Your task to perform on an android device: Open the map Image 0: 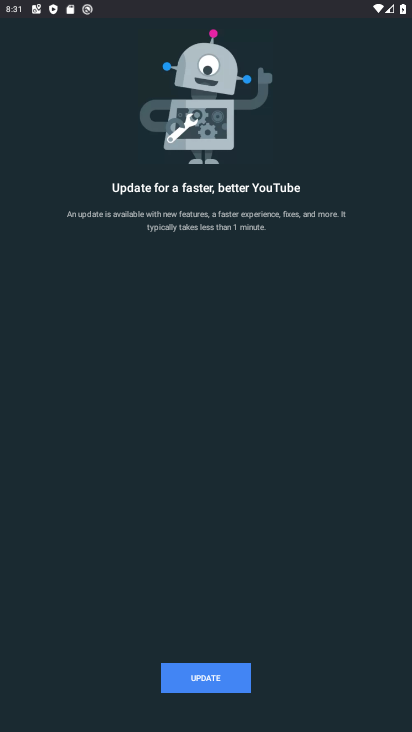
Step 0: press home button
Your task to perform on an android device: Open the map Image 1: 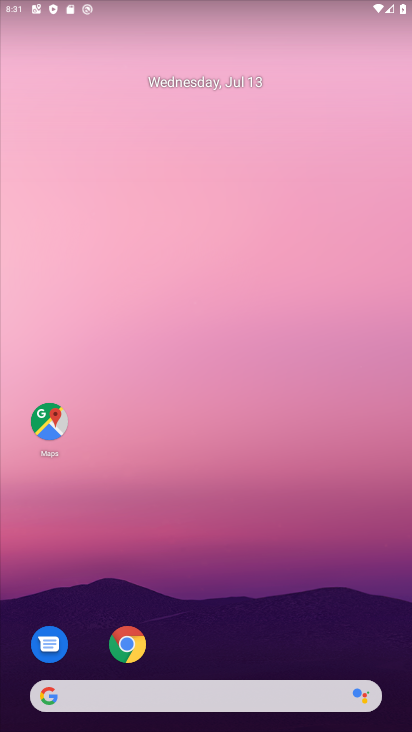
Step 1: click (69, 413)
Your task to perform on an android device: Open the map Image 2: 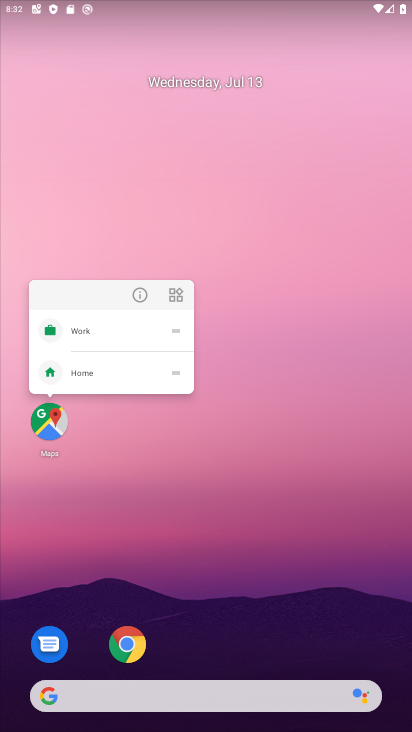
Step 2: click (39, 430)
Your task to perform on an android device: Open the map Image 3: 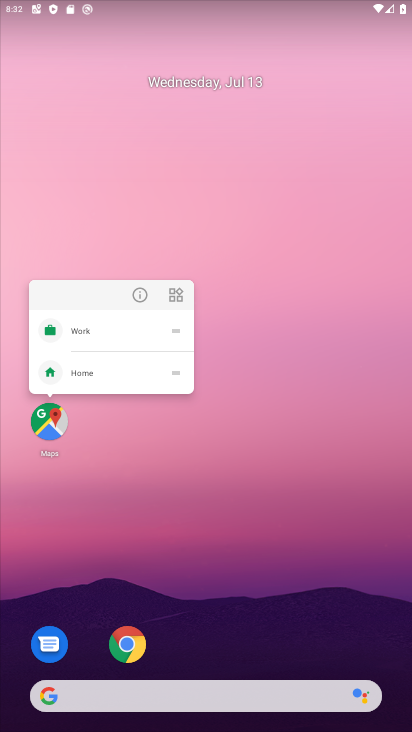
Step 3: click (50, 426)
Your task to perform on an android device: Open the map Image 4: 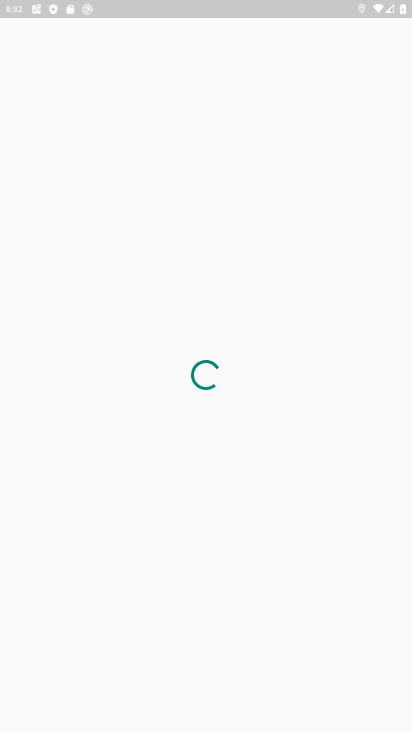
Step 4: click (34, 36)
Your task to perform on an android device: Open the map Image 5: 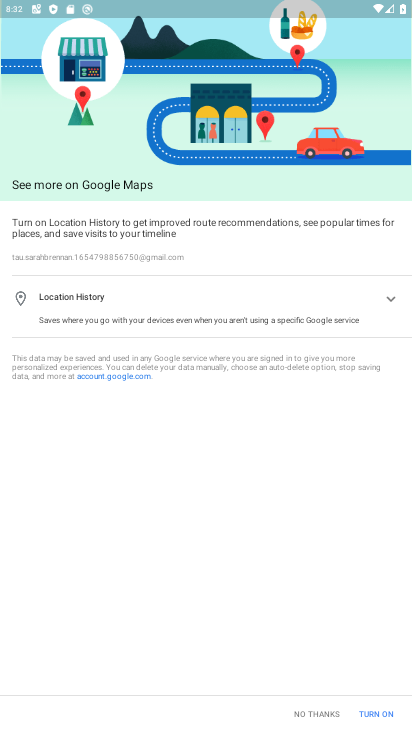
Step 5: click (104, 300)
Your task to perform on an android device: Open the map Image 6: 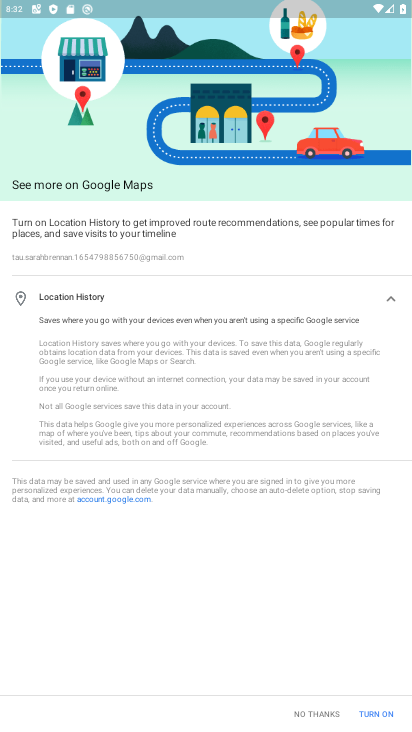
Step 6: click (388, 713)
Your task to perform on an android device: Open the map Image 7: 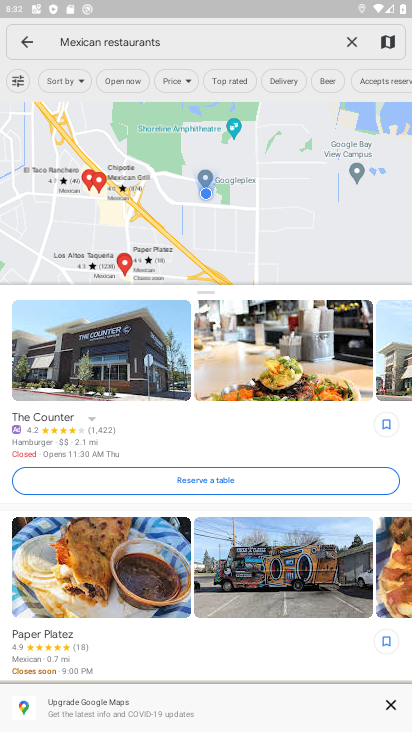
Step 7: click (25, 44)
Your task to perform on an android device: Open the map Image 8: 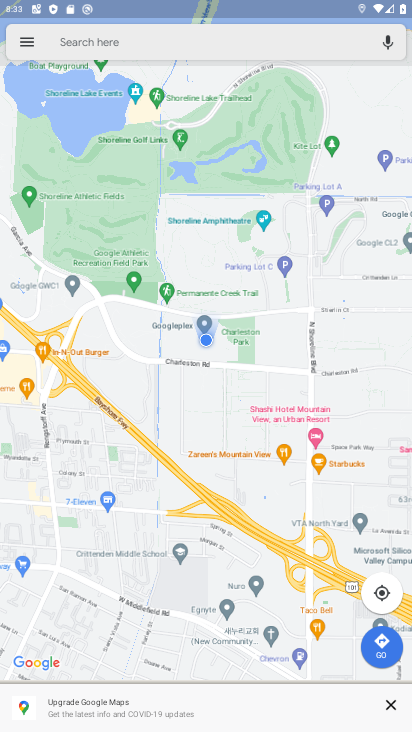
Step 8: task complete